Your task to perform on an android device: Open eBay Image 0: 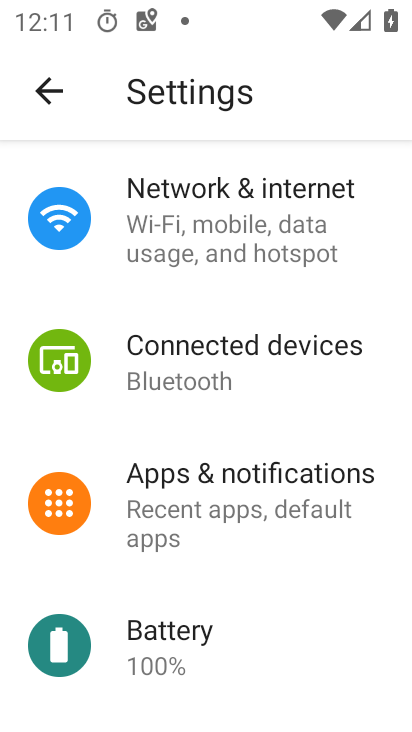
Step 0: press home button
Your task to perform on an android device: Open eBay Image 1: 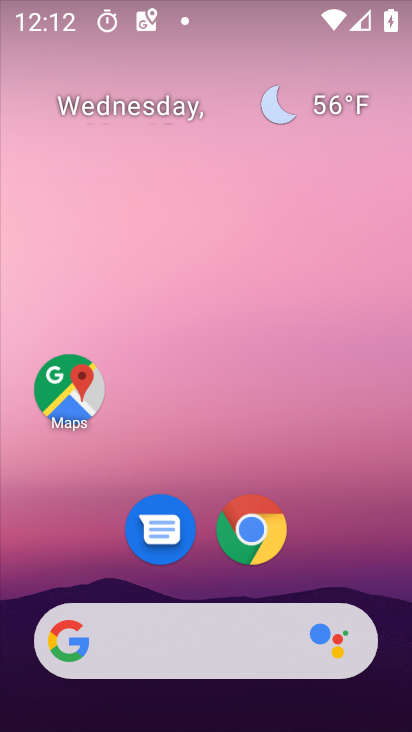
Step 1: click (241, 532)
Your task to perform on an android device: Open eBay Image 2: 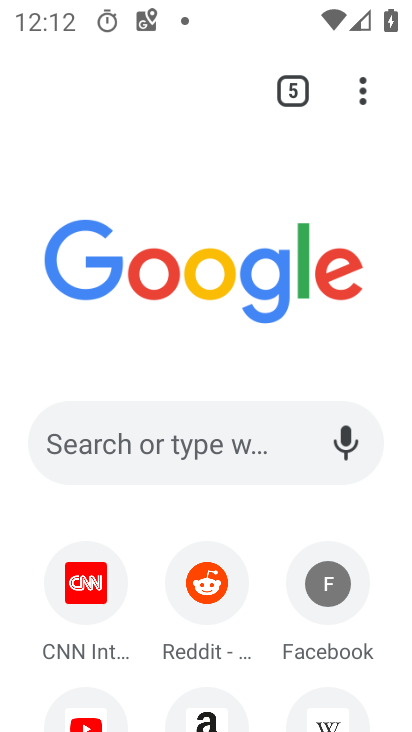
Step 2: drag from (153, 542) to (215, 144)
Your task to perform on an android device: Open eBay Image 3: 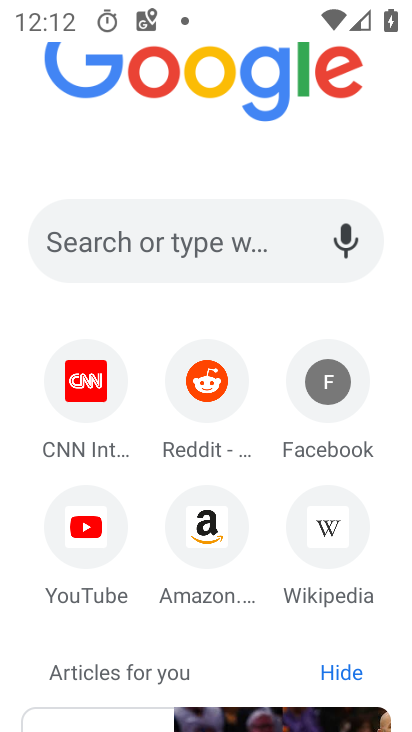
Step 3: click (195, 247)
Your task to perform on an android device: Open eBay Image 4: 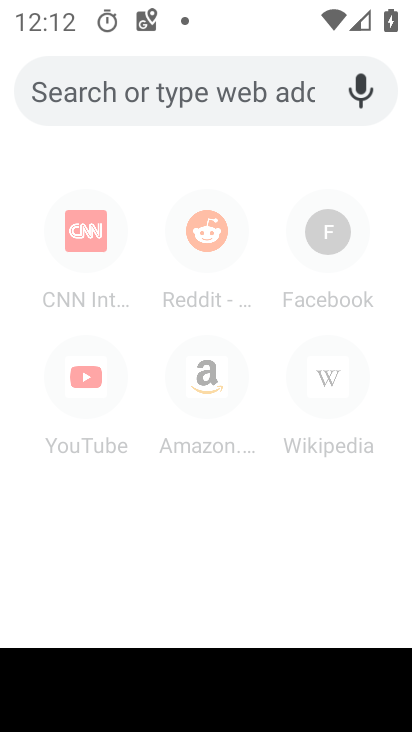
Step 4: type "ebay"
Your task to perform on an android device: Open eBay Image 5: 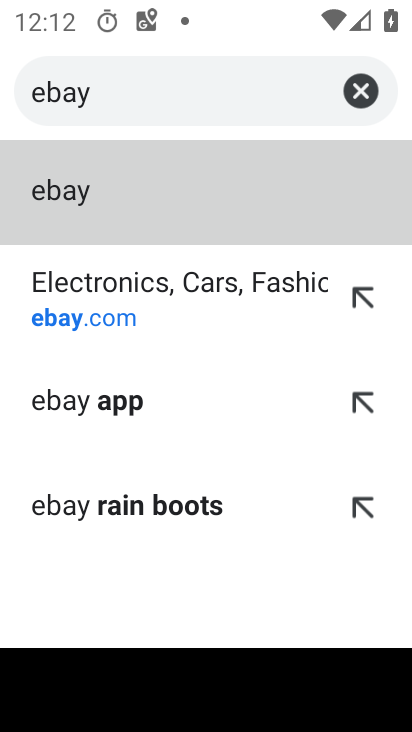
Step 5: click (184, 322)
Your task to perform on an android device: Open eBay Image 6: 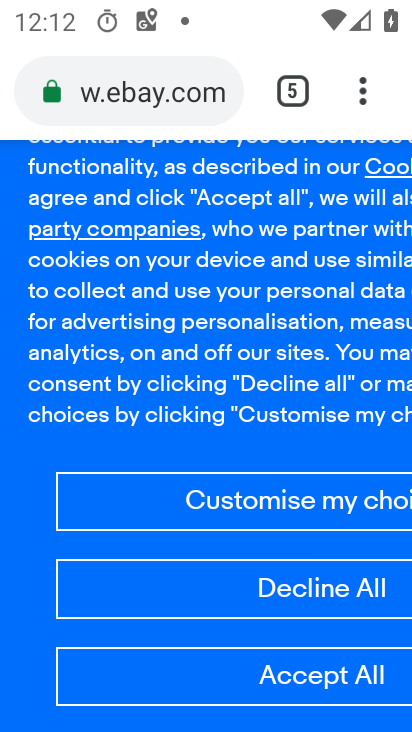
Step 6: task complete